Your task to perform on an android device: create a new album in the google photos Image 0: 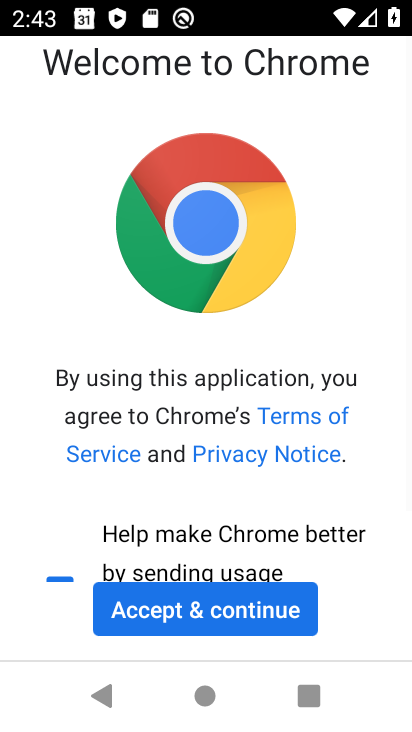
Step 0: press home button
Your task to perform on an android device: create a new album in the google photos Image 1: 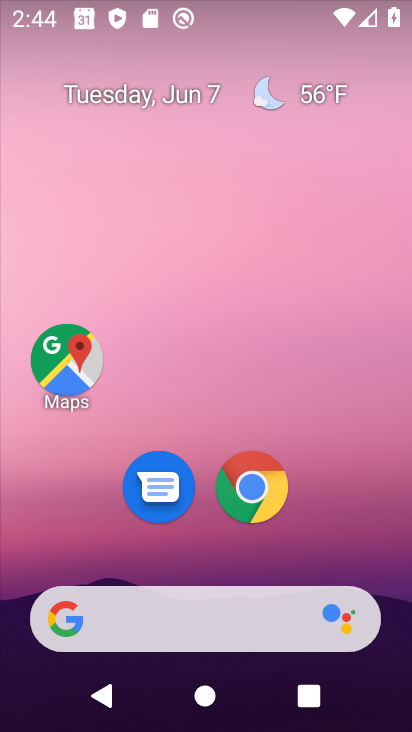
Step 1: press home button
Your task to perform on an android device: create a new album in the google photos Image 2: 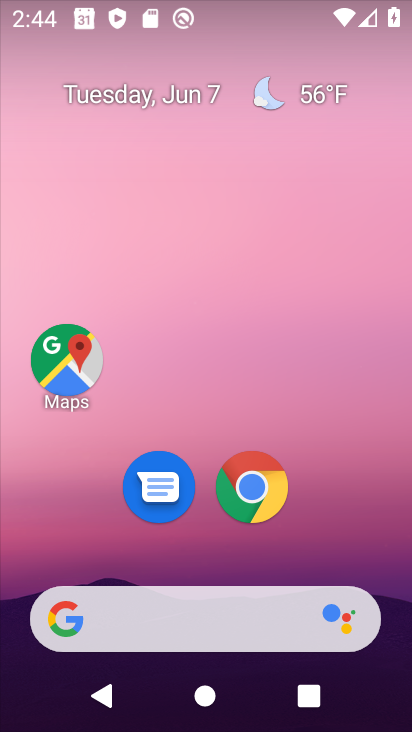
Step 2: drag from (333, 541) to (307, 66)
Your task to perform on an android device: create a new album in the google photos Image 3: 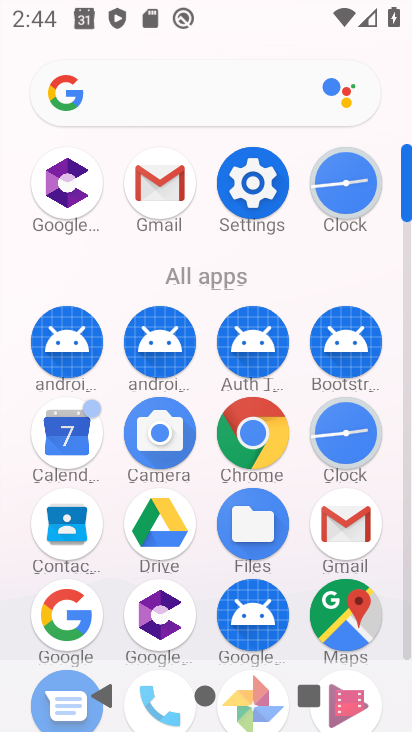
Step 3: drag from (201, 581) to (201, 230)
Your task to perform on an android device: create a new album in the google photos Image 4: 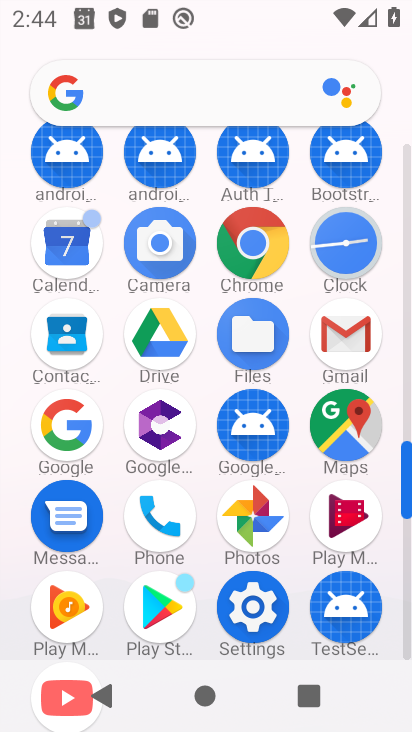
Step 4: click (249, 519)
Your task to perform on an android device: create a new album in the google photos Image 5: 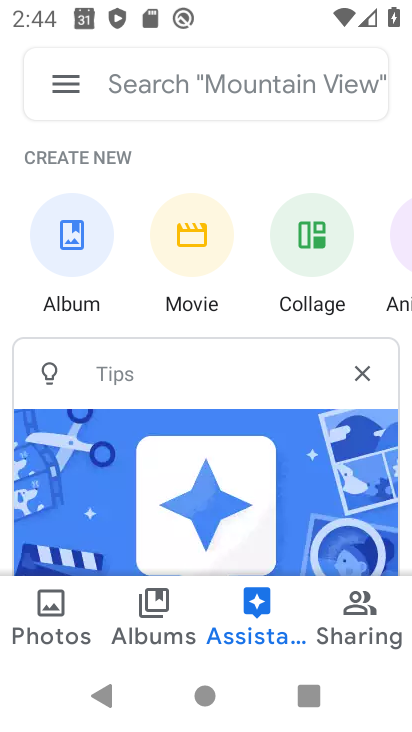
Step 5: click (56, 615)
Your task to perform on an android device: create a new album in the google photos Image 6: 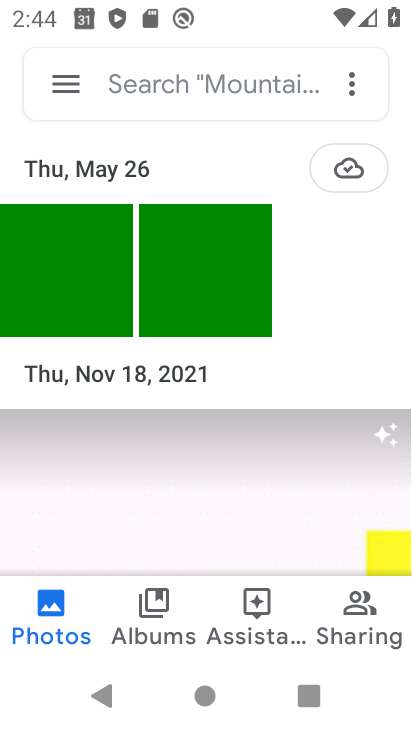
Step 6: click (93, 277)
Your task to perform on an android device: create a new album in the google photos Image 7: 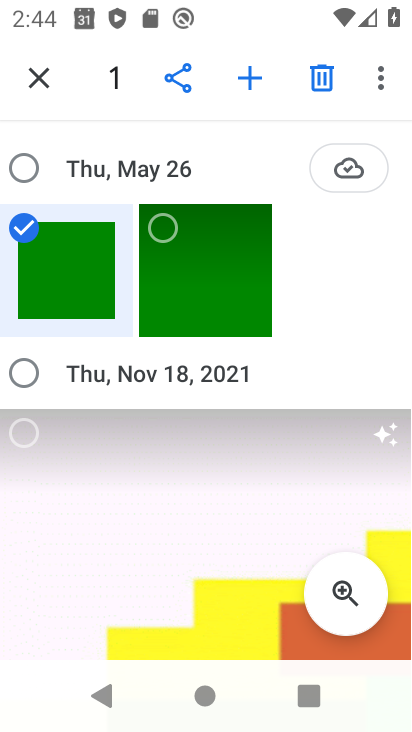
Step 7: click (204, 252)
Your task to perform on an android device: create a new album in the google photos Image 8: 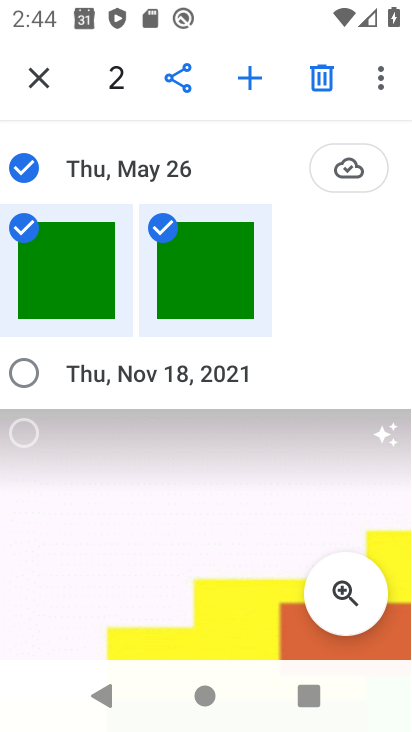
Step 8: click (250, 72)
Your task to perform on an android device: create a new album in the google photos Image 9: 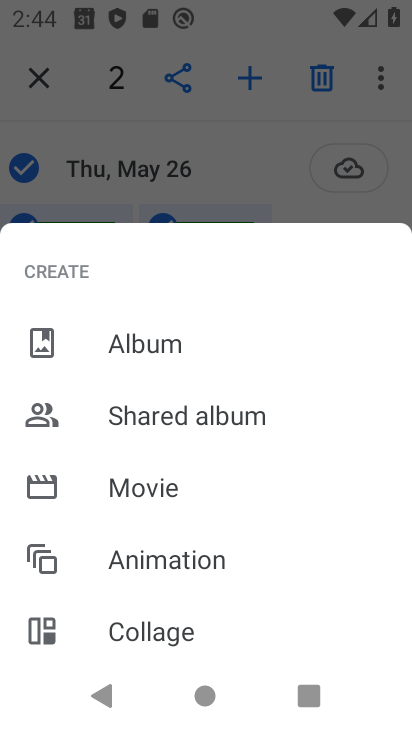
Step 9: click (178, 351)
Your task to perform on an android device: create a new album in the google photos Image 10: 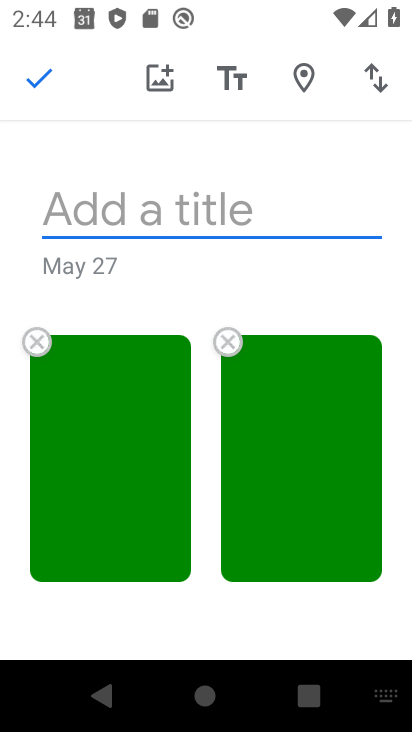
Step 10: type "fcggfgfgchcghchg"
Your task to perform on an android device: create a new album in the google photos Image 11: 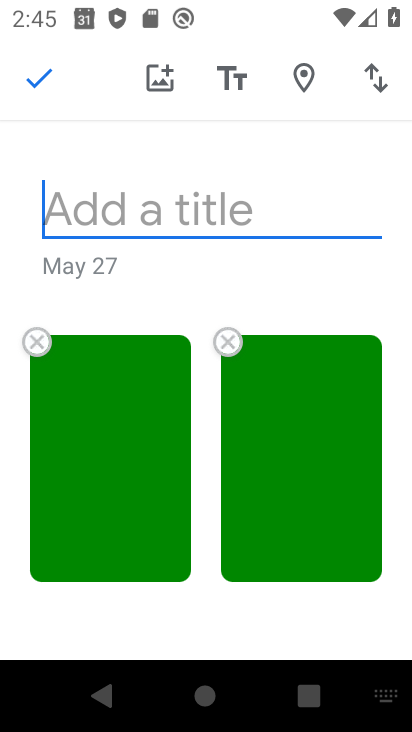
Step 11: click (205, 206)
Your task to perform on an android device: create a new album in the google photos Image 12: 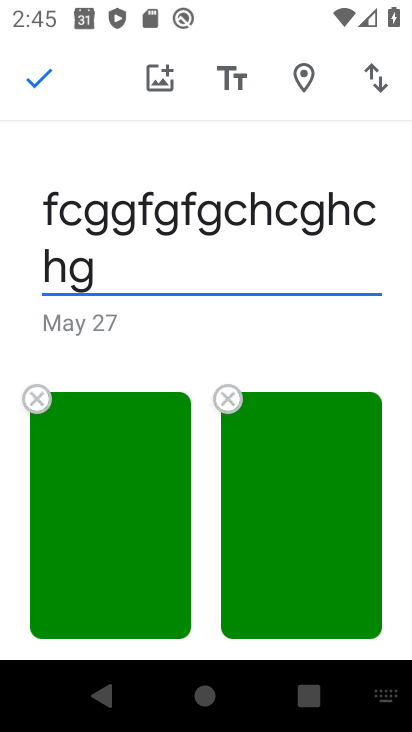
Step 12: click (42, 80)
Your task to perform on an android device: create a new album in the google photos Image 13: 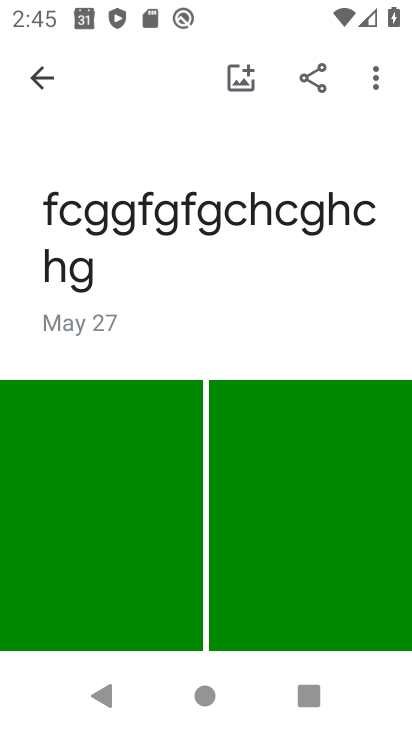
Step 13: task complete